Your task to perform on an android device: Empty the shopping cart on ebay. Add "alienware aurora" to the cart on ebay Image 0: 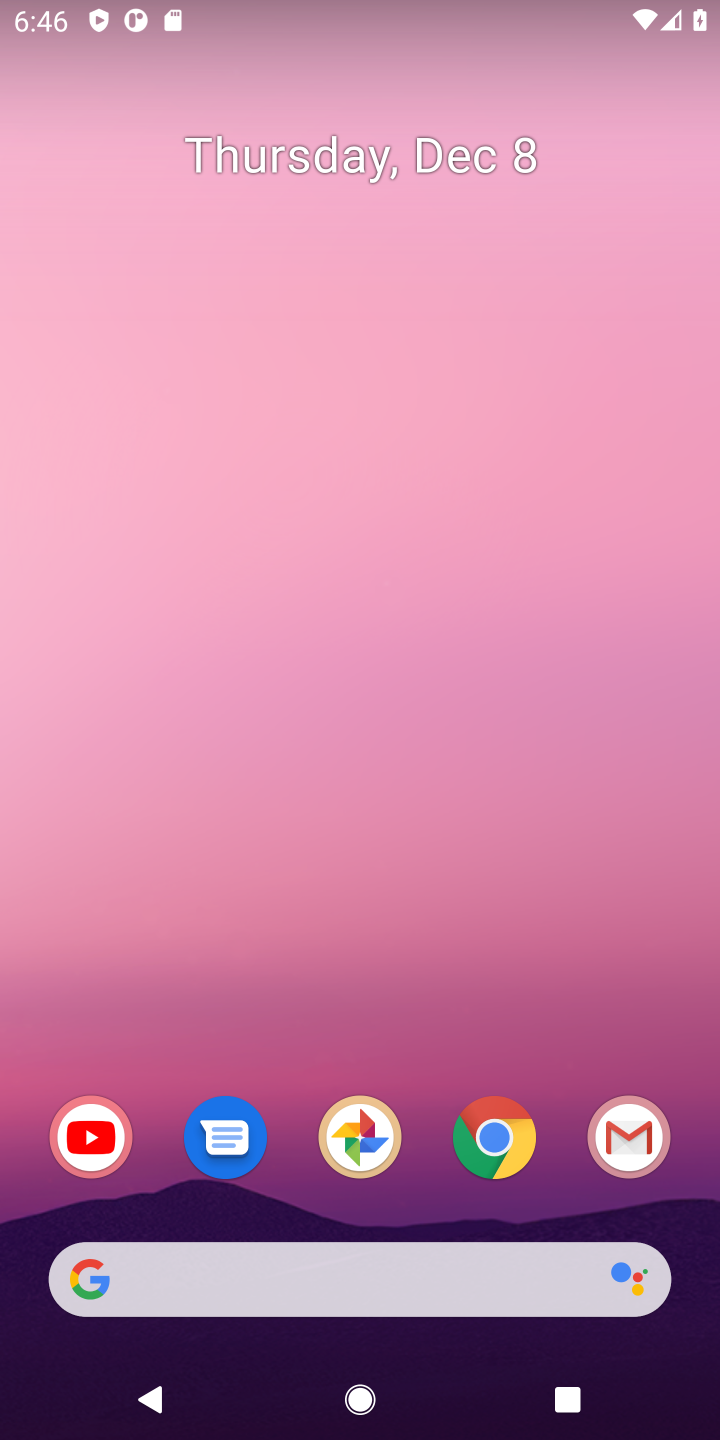
Step 0: click (472, 1142)
Your task to perform on an android device: Empty the shopping cart on ebay. Add "alienware aurora" to the cart on ebay Image 1: 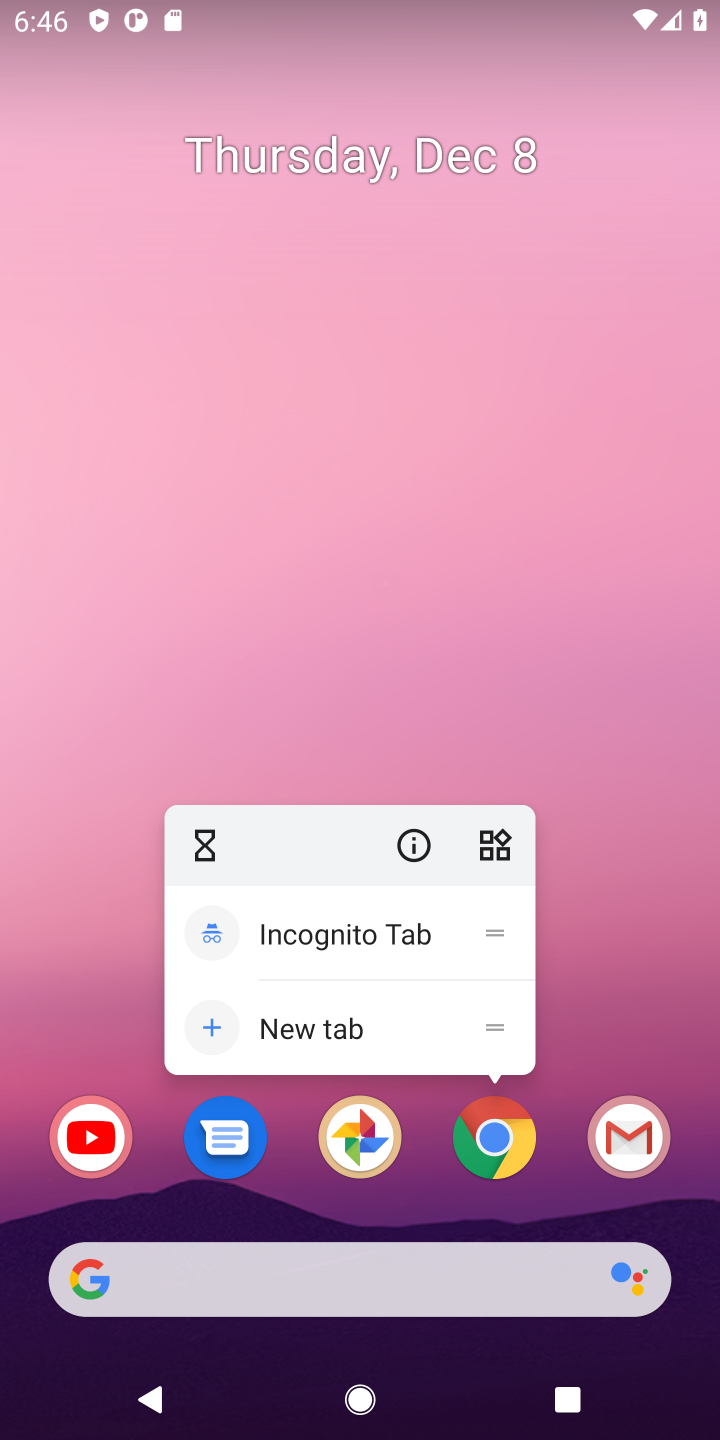
Step 1: click (486, 1139)
Your task to perform on an android device: Empty the shopping cart on ebay. Add "alienware aurora" to the cart on ebay Image 2: 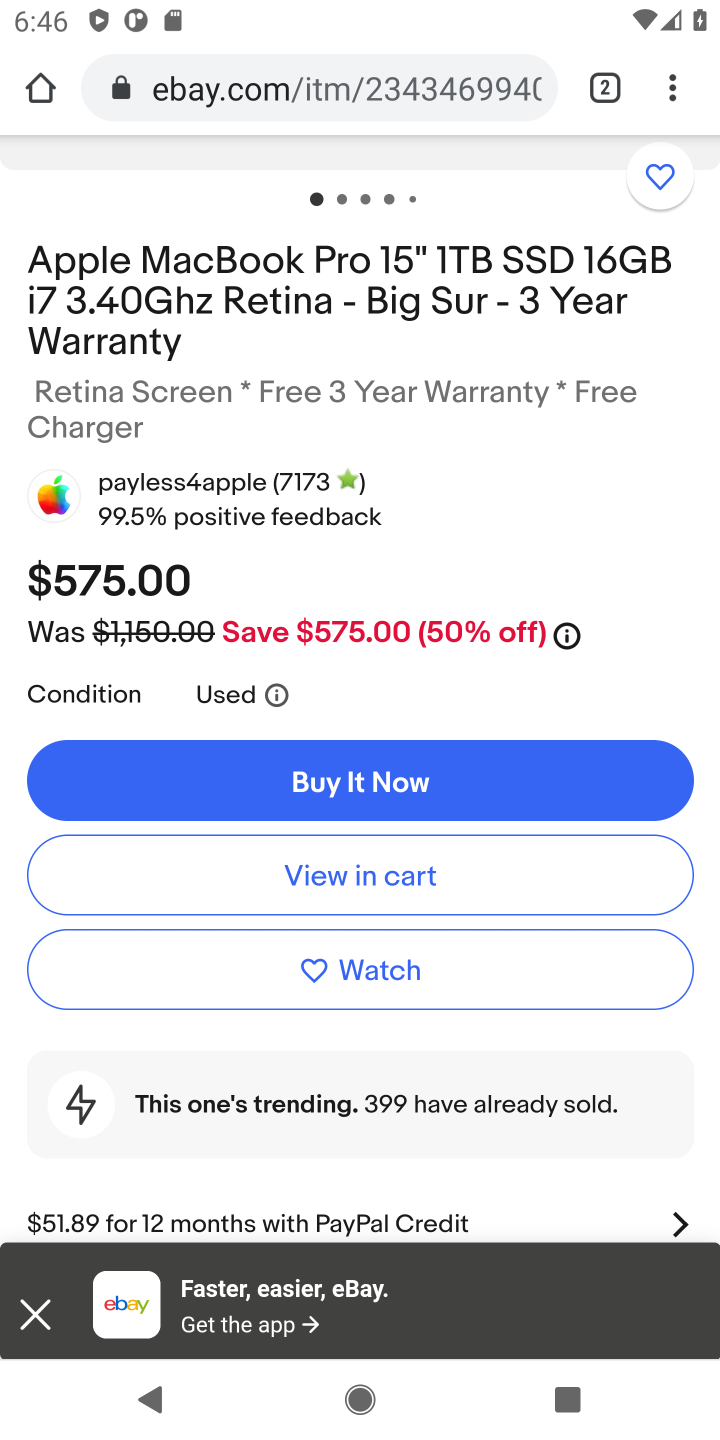
Step 2: click (412, 885)
Your task to perform on an android device: Empty the shopping cart on ebay. Add "alienware aurora" to the cart on ebay Image 3: 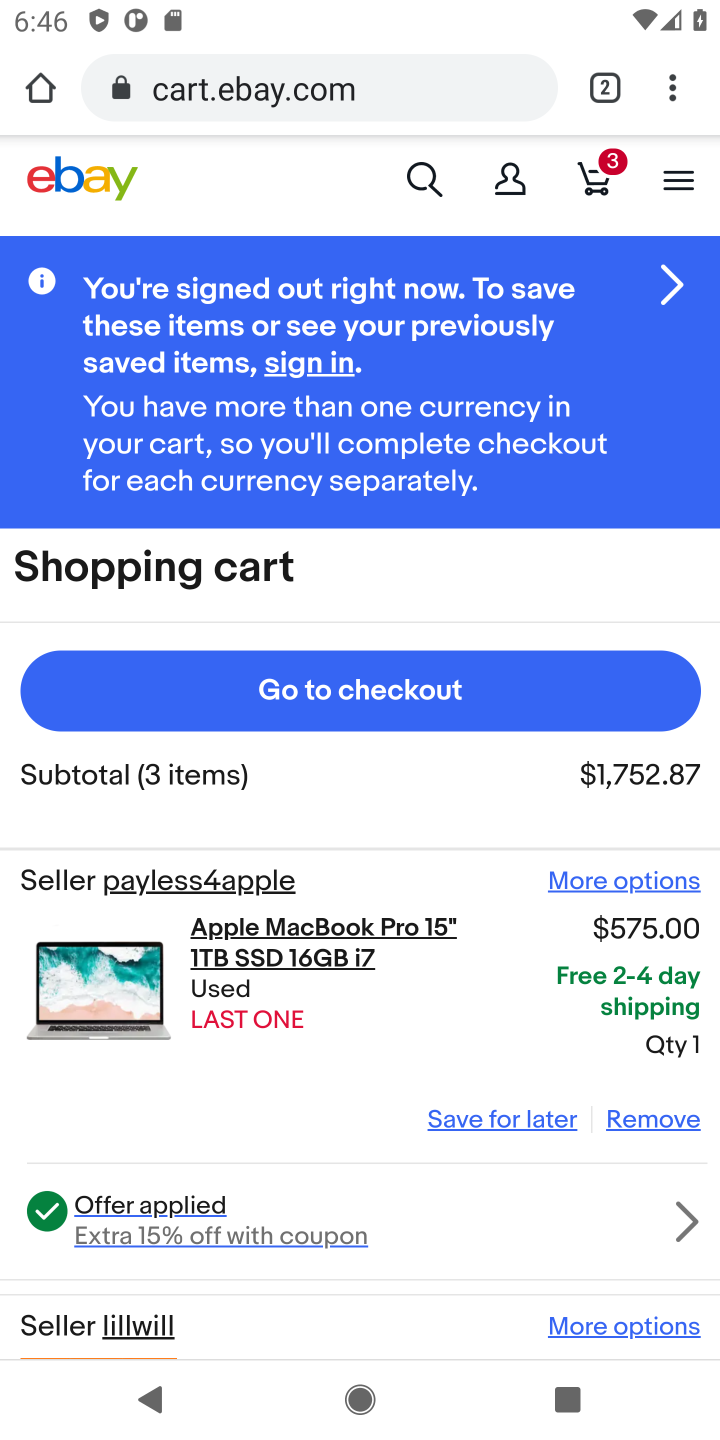
Step 3: click (655, 1115)
Your task to perform on an android device: Empty the shopping cart on ebay. Add "alienware aurora" to the cart on ebay Image 4: 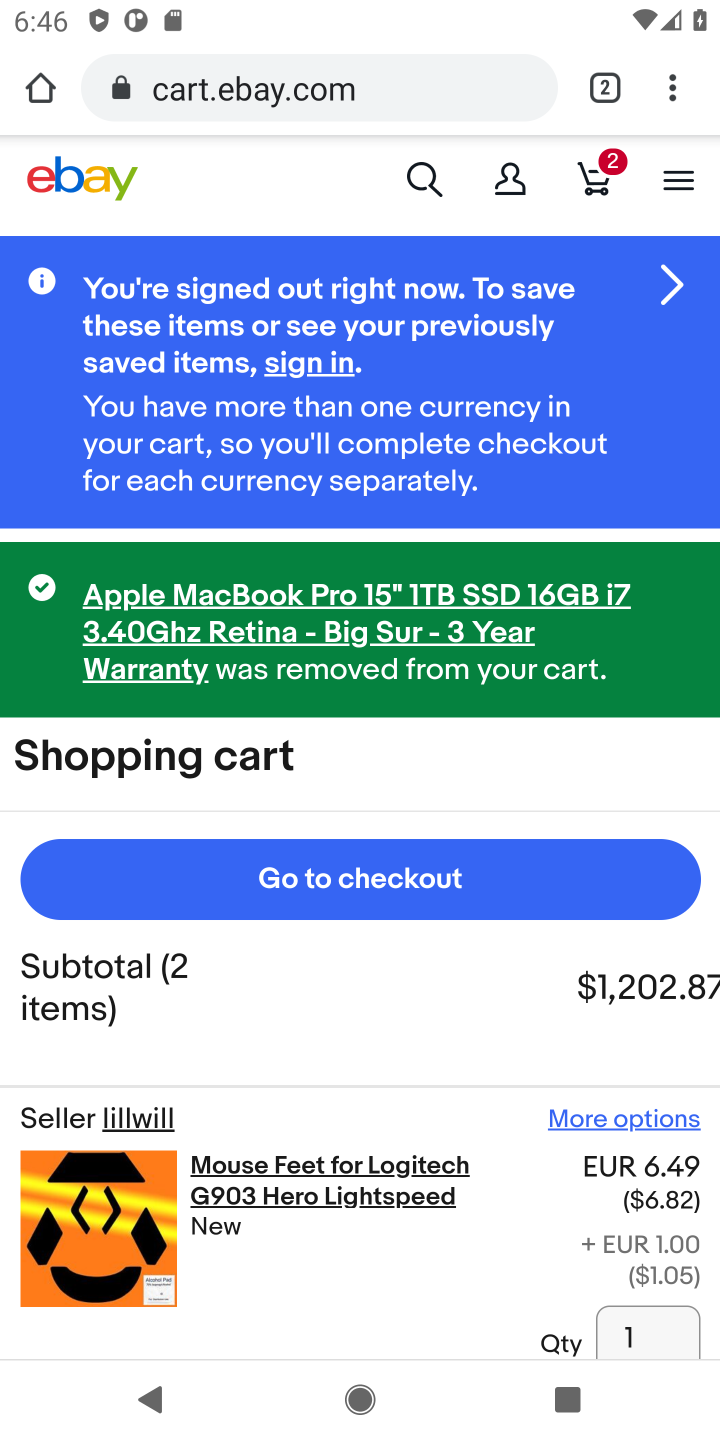
Step 4: drag from (426, 1252) to (552, 710)
Your task to perform on an android device: Empty the shopping cart on ebay. Add "alienware aurora" to the cart on ebay Image 5: 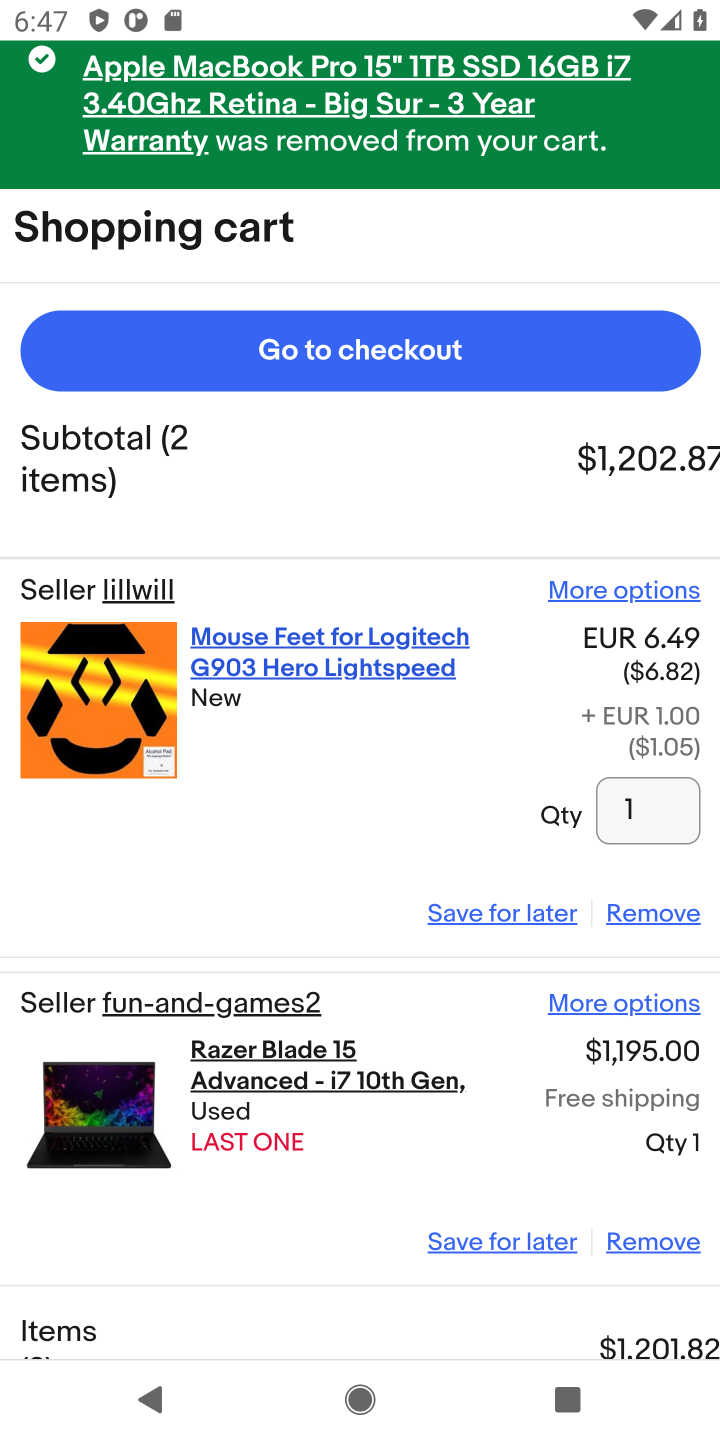
Step 5: click (652, 908)
Your task to perform on an android device: Empty the shopping cart on ebay. Add "alienware aurora" to the cart on ebay Image 6: 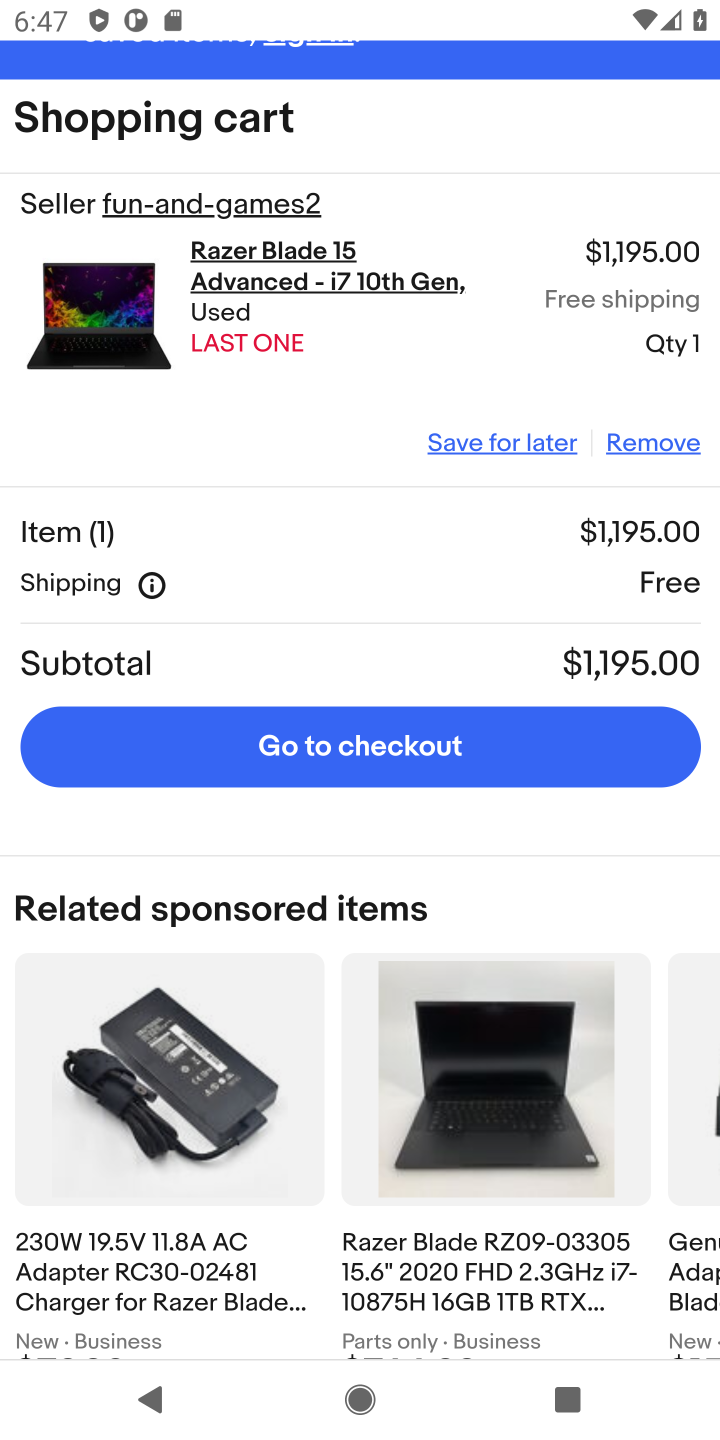
Step 6: click (659, 436)
Your task to perform on an android device: Empty the shopping cart on ebay. Add "alienware aurora" to the cart on ebay Image 7: 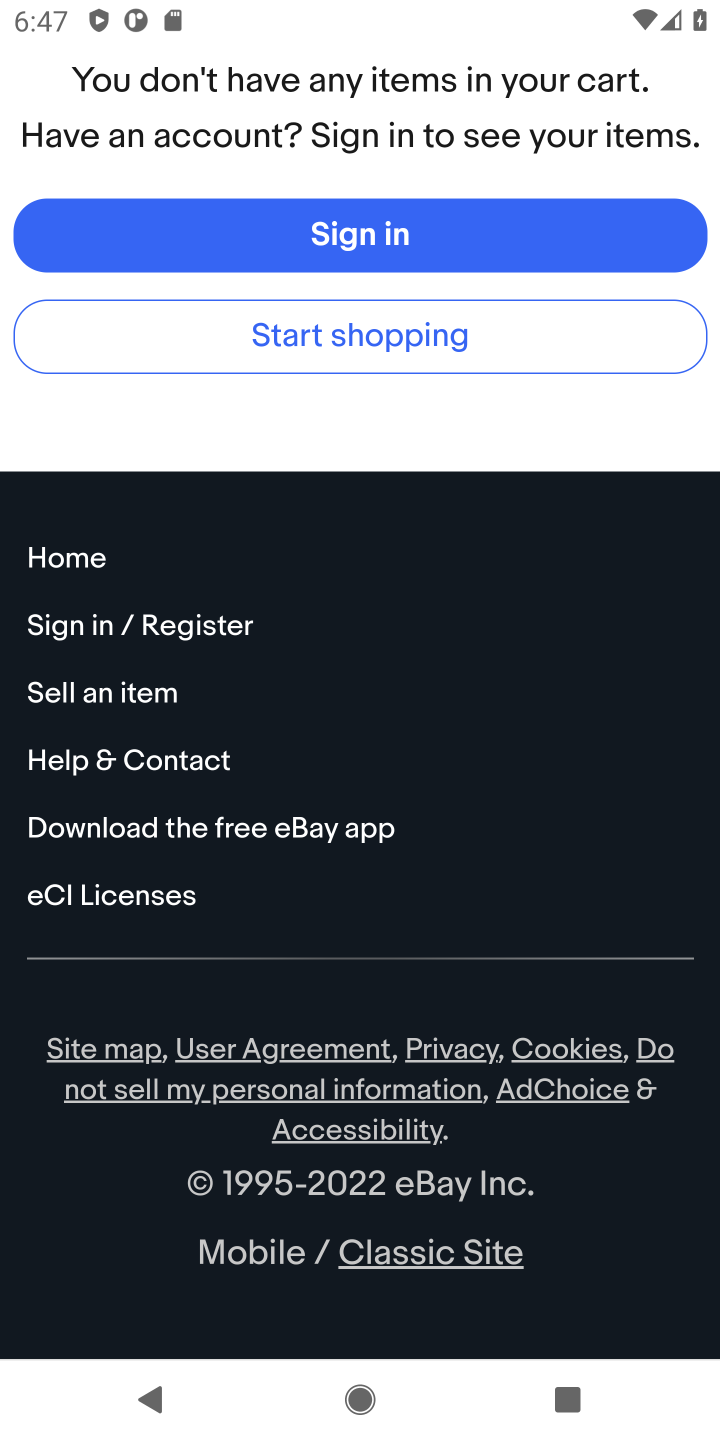
Step 7: drag from (454, 143) to (447, 946)
Your task to perform on an android device: Empty the shopping cart on ebay. Add "alienware aurora" to the cart on ebay Image 8: 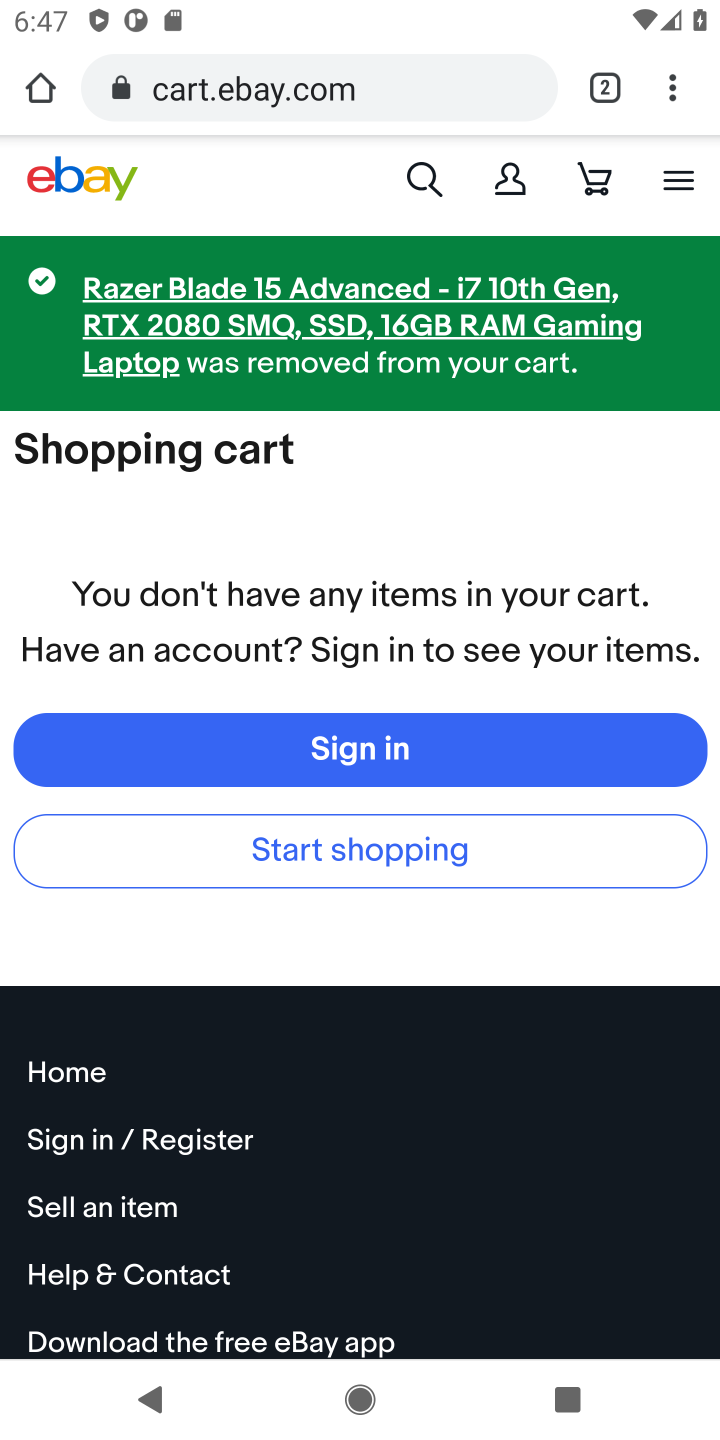
Step 8: click (425, 168)
Your task to perform on an android device: Empty the shopping cart on ebay. Add "alienware aurora" to the cart on ebay Image 9: 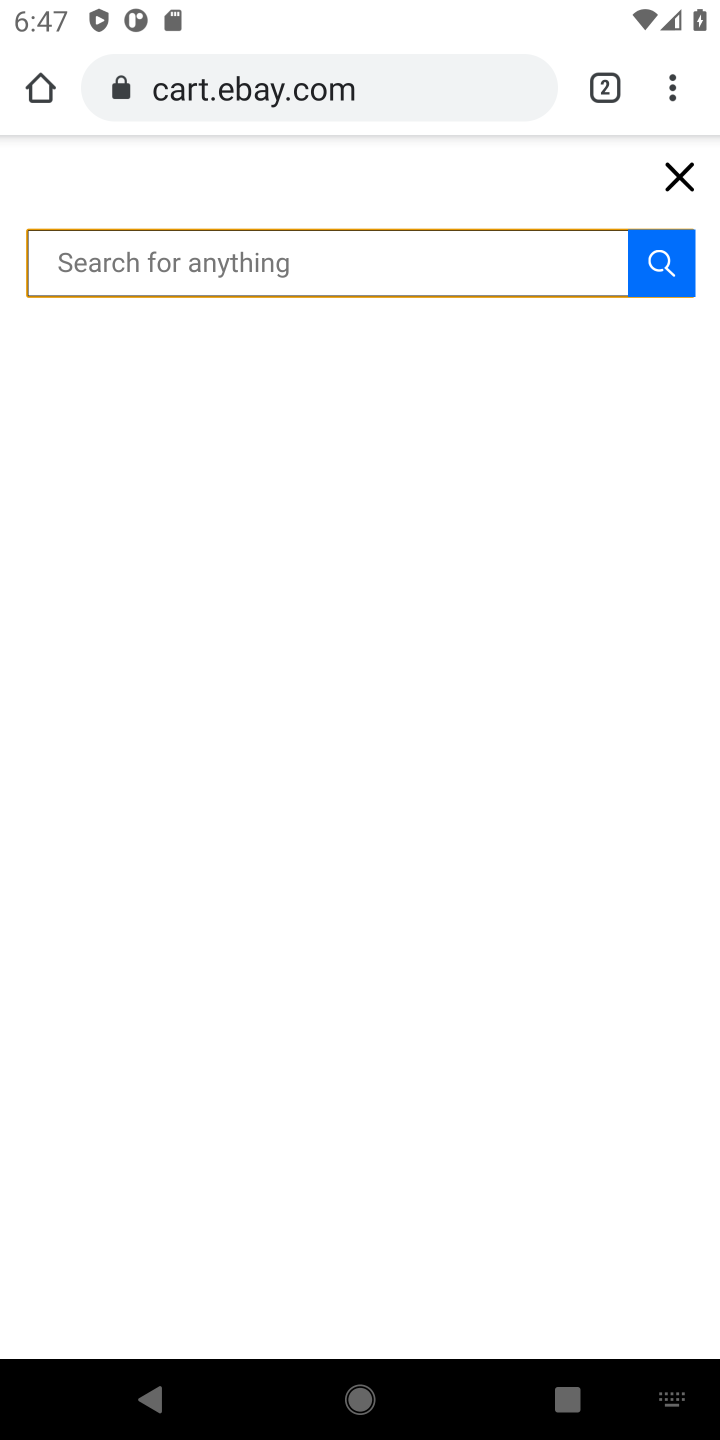
Step 9: type "alienware aurora"
Your task to perform on an android device: Empty the shopping cart on ebay. Add "alienware aurora" to the cart on ebay Image 10: 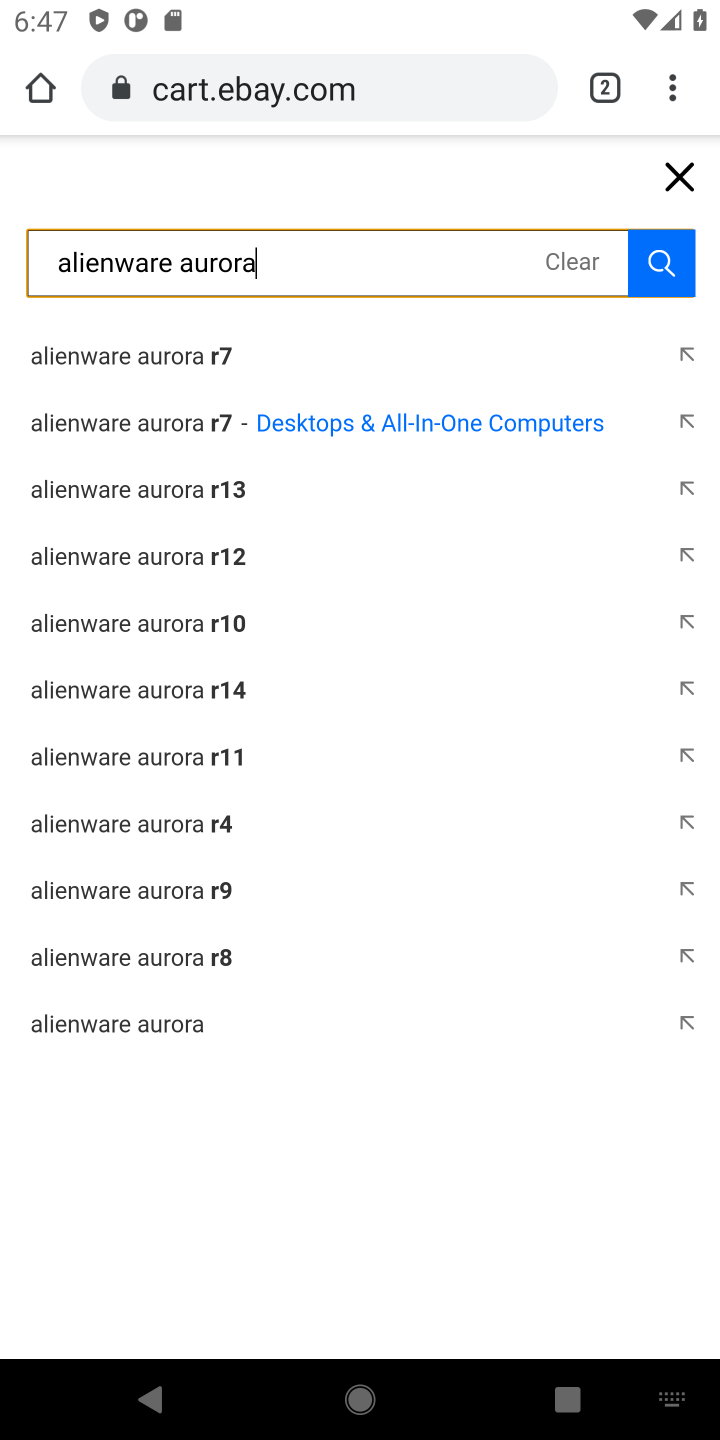
Step 10: click (137, 1033)
Your task to perform on an android device: Empty the shopping cart on ebay. Add "alienware aurora" to the cart on ebay Image 11: 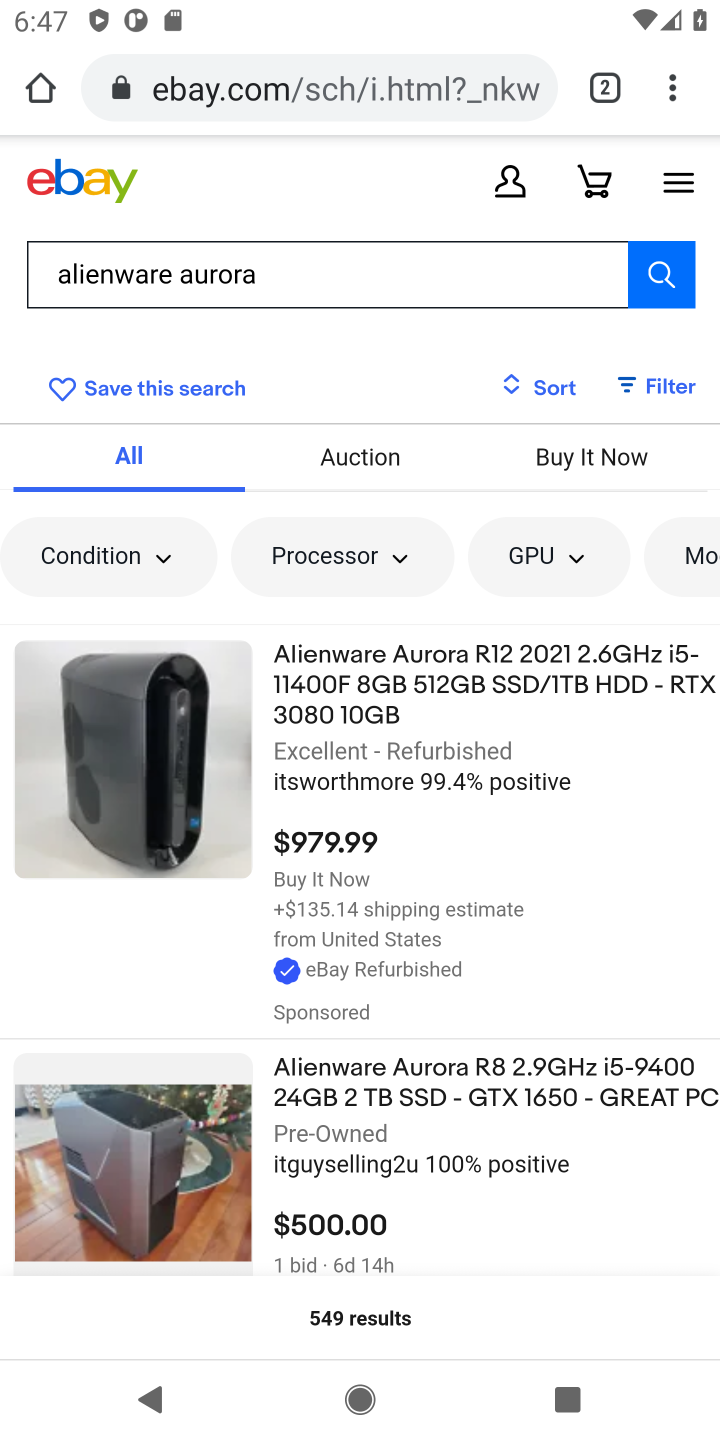
Step 11: click (463, 679)
Your task to perform on an android device: Empty the shopping cart on ebay. Add "alienware aurora" to the cart on ebay Image 12: 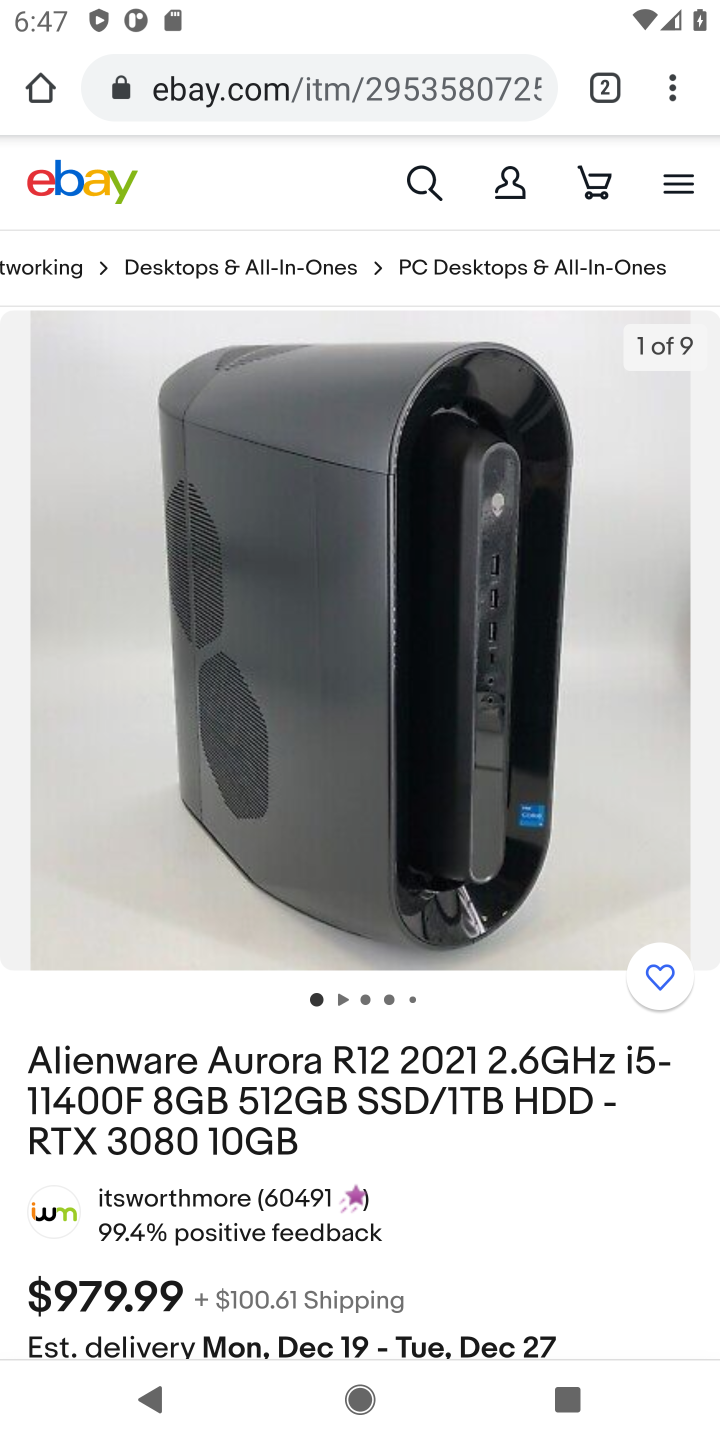
Step 12: drag from (469, 1265) to (557, 24)
Your task to perform on an android device: Empty the shopping cart on ebay. Add "alienware aurora" to the cart on ebay Image 13: 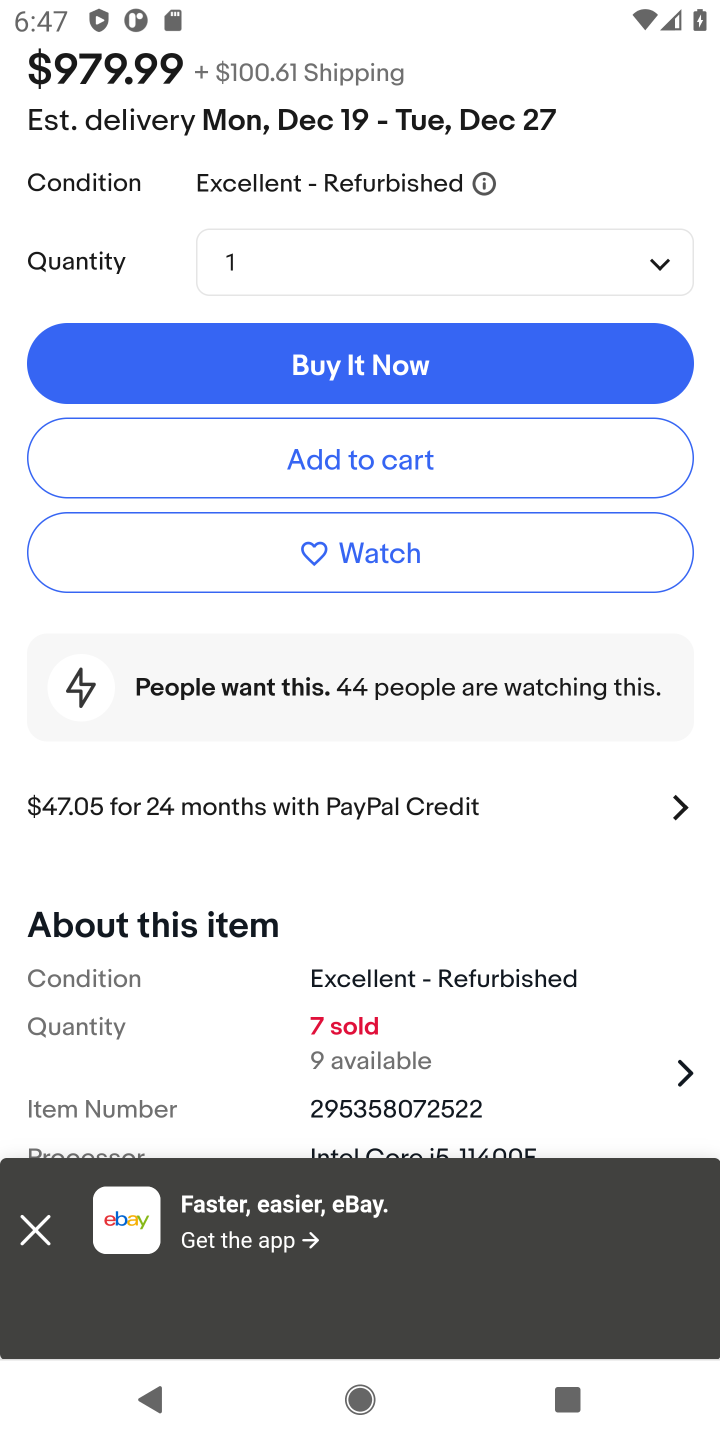
Step 13: click (423, 457)
Your task to perform on an android device: Empty the shopping cart on ebay. Add "alienware aurora" to the cart on ebay Image 14: 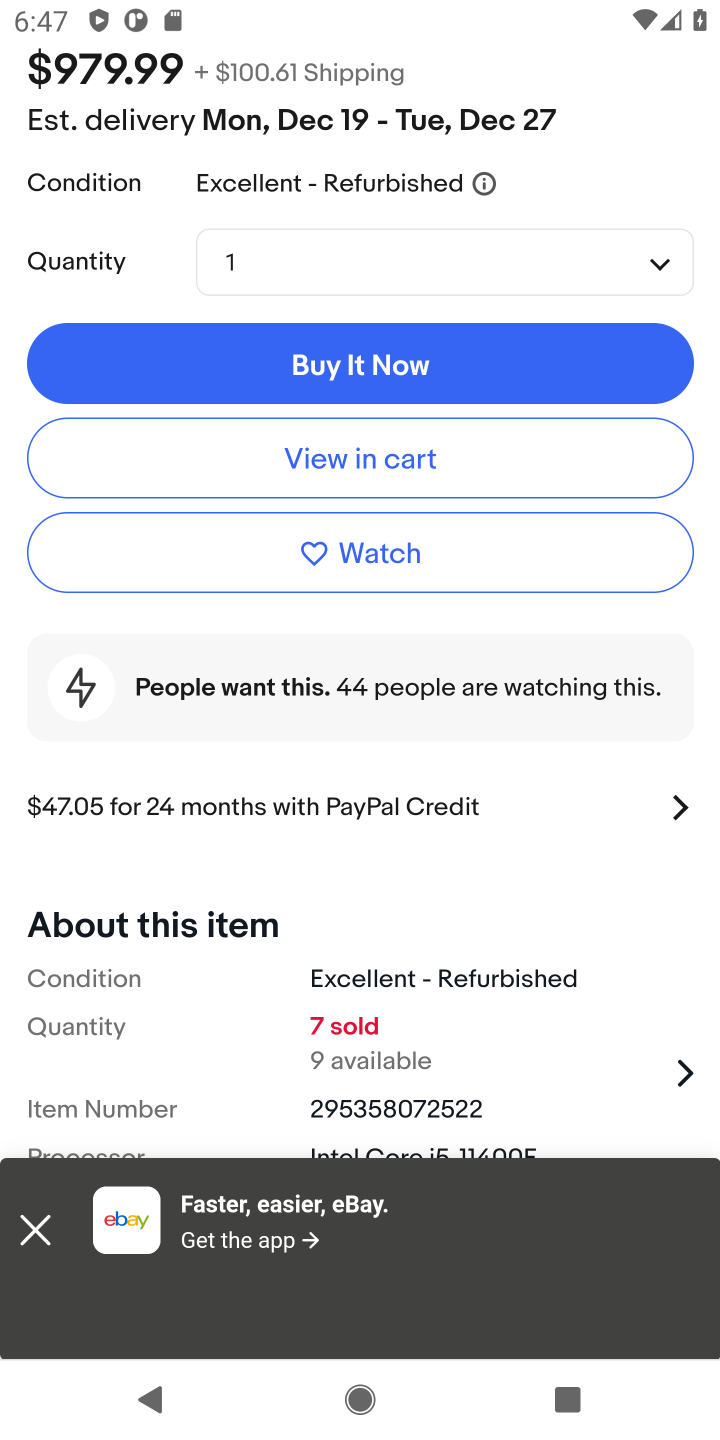
Step 14: task complete